Your task to perform on an android device: Go to Google maps Image 0: 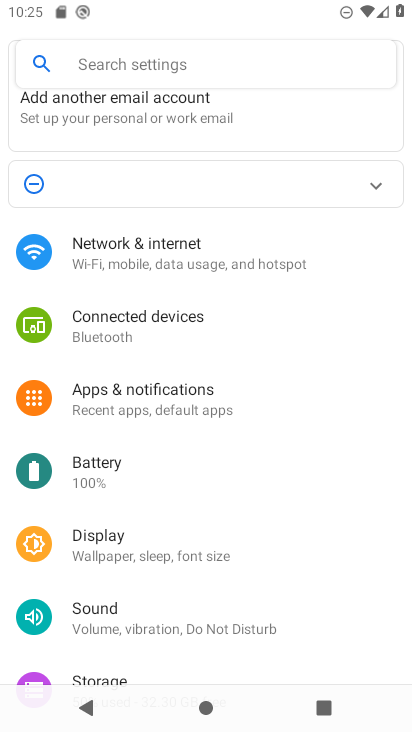
Step 0: press home button
Your task to perform on an android device: Go to Google maps Image 1: 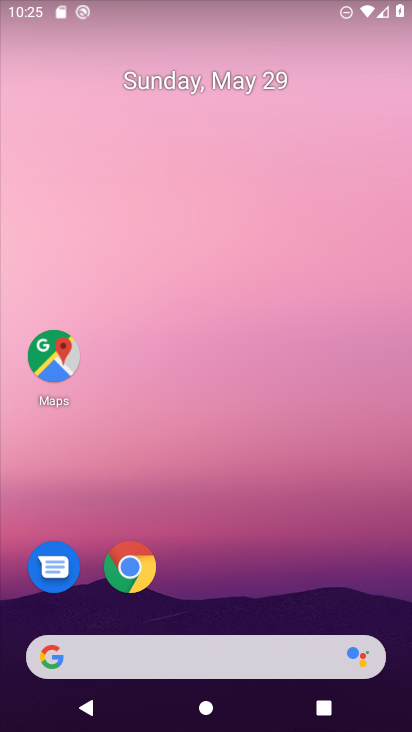
Step 1: click (55, 354)
Your task to perform on an android device: Go to Google maps Image 2: 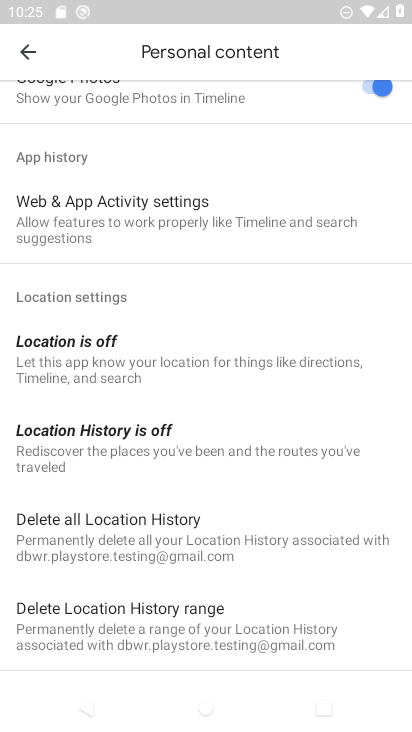
Step 2: task complete